Your task to perform on an android device: toggle airplane mode Image 0: 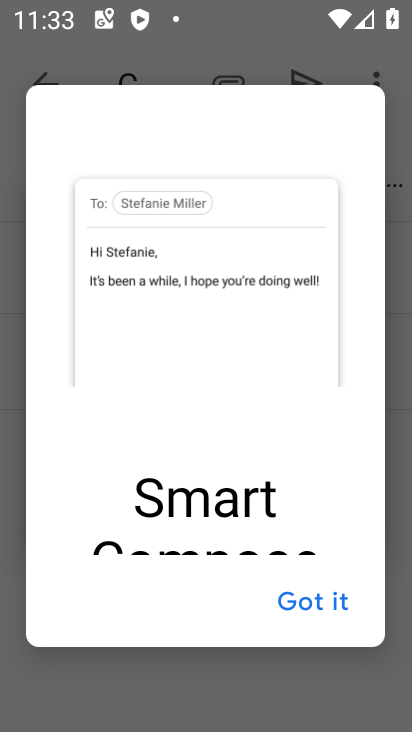
Step 0: press home button
Your task to perform on an android device: toggle airplane mode Image 1: 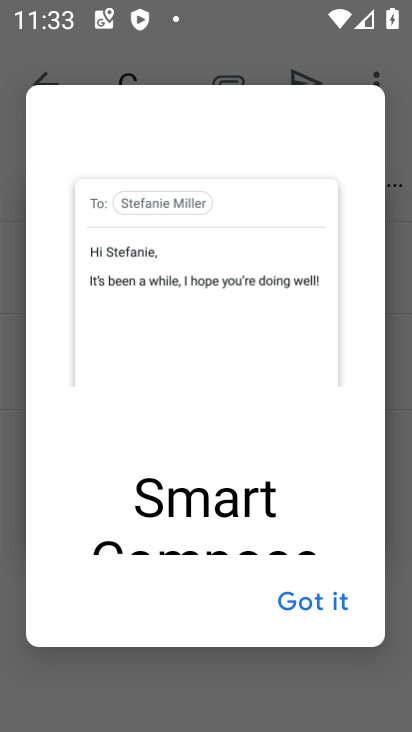
Step 1: press home button
Your task to perform on an android device: toggle airplane mode Image 2: 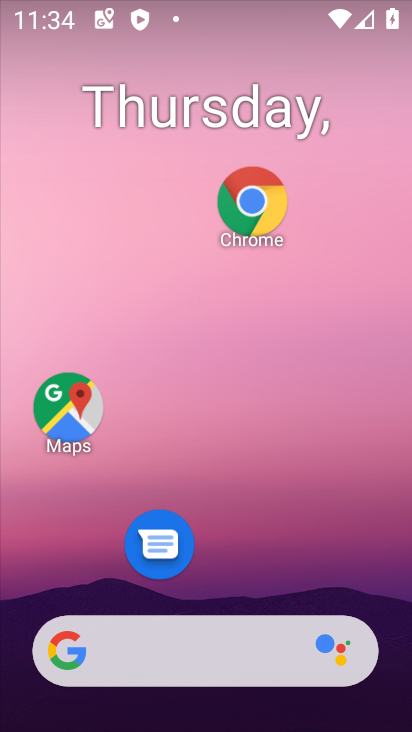
Step 2: drag from (218, 7) to (221, 512)
Your task to perform on an android device: toggle airplane mode Image 3: 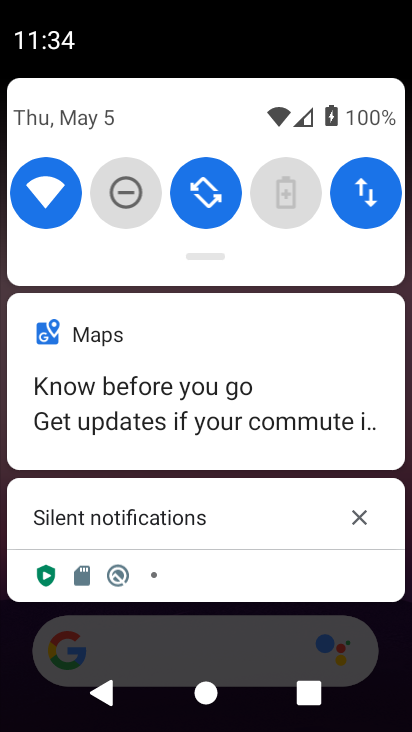
Step 3: drag from (223, 255) to (192, 719)
Your task to perform on an android device: toggle airplane mode Image 4: 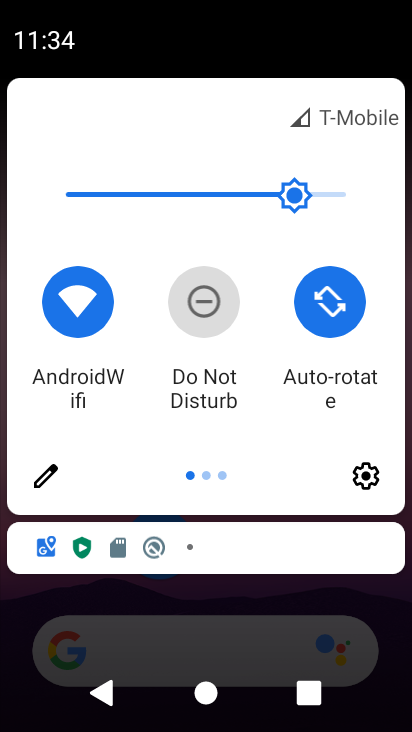
Step 4: drag from (366, 326) to (62, 323)
Your task to perform on an android device: toggle airplane mode Image 5: 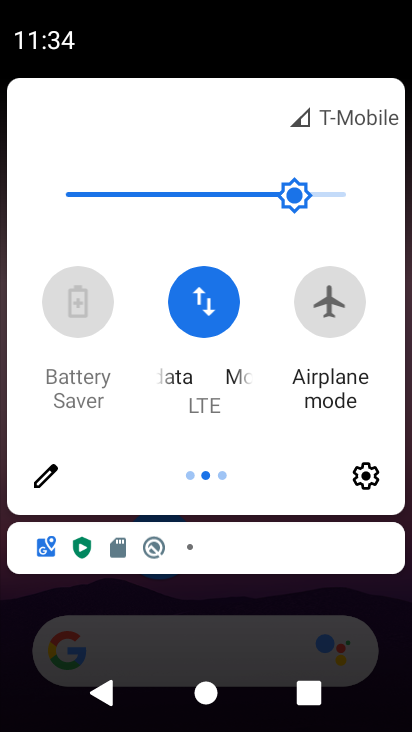
Step 5: click (327, 296)
Your task to perform on an android device: toggle airplane mode Image 6: 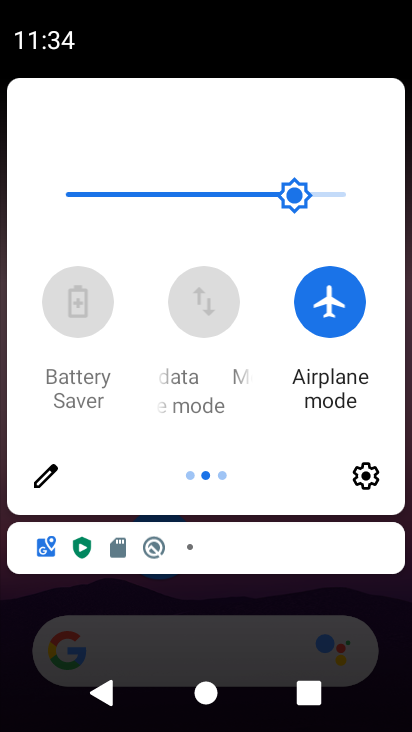
Step 6: task complete